Your task to perform on an android device: empty trash in the gmail app Image 0: 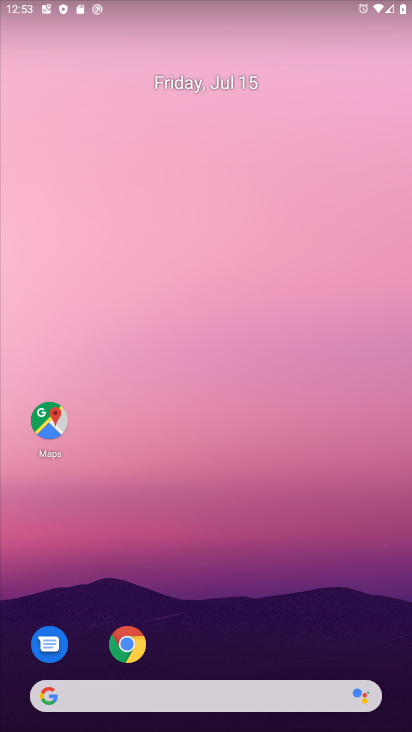
Step 0: drag from (390, 623) to (247, 23)
Your task to perform on an android device: empty trash in the gmail app Image 1: 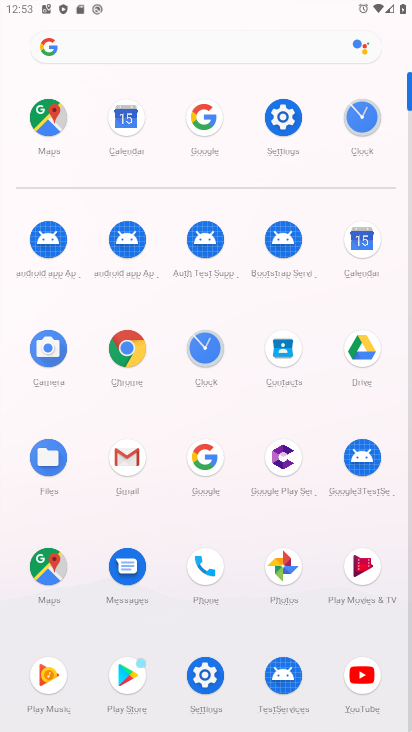
Step 1: click (122, 453)
Your task to perform on an android device: empty trash in the gmail app Image 2: 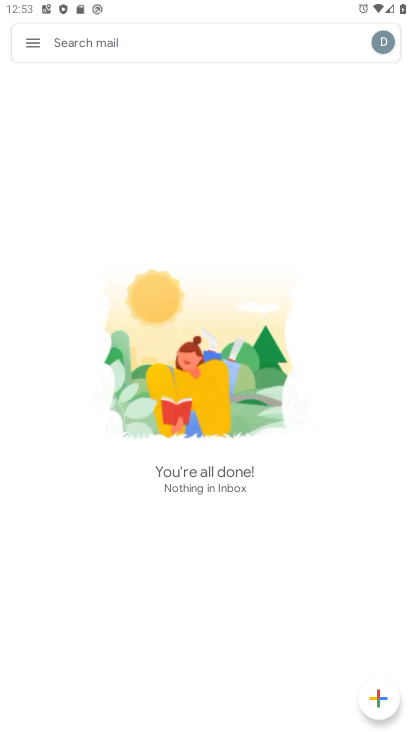
Step 2: click (28, 55)
Your task to perform on an android device: empty trash in the gmail app Image 3: 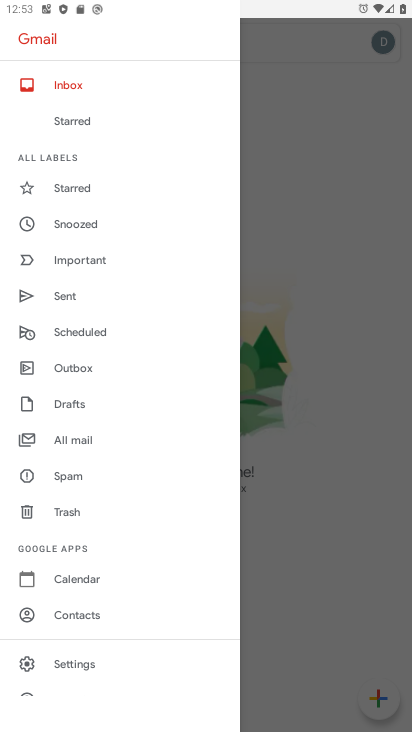
Step 3: click (73, 510)
Your task to perform on an android device: empty trash in the gmail app Image 4: 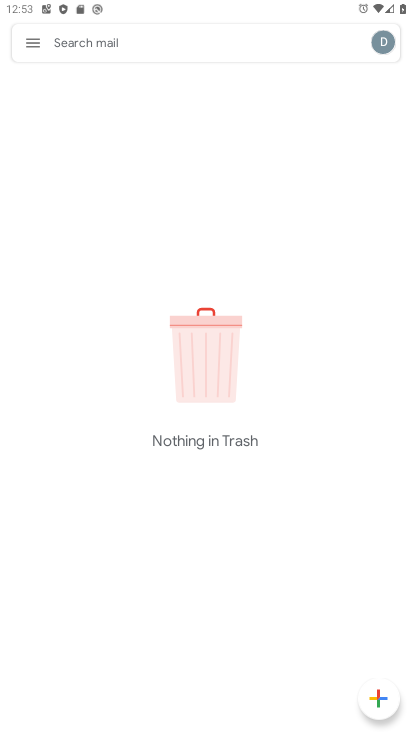
Step 4: task complete